Your task to perform on an android device: Open Reddit.com Image 0: 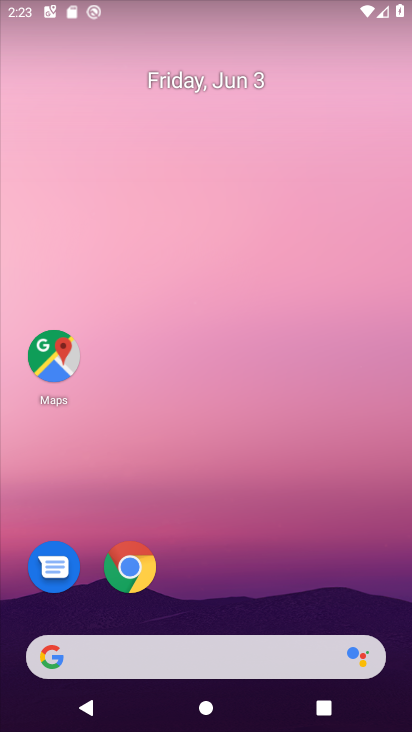
Step 0: drag from (220, 579) to (227, 156)
Your task to perform on an android device: Open Reddit.com Image 1: 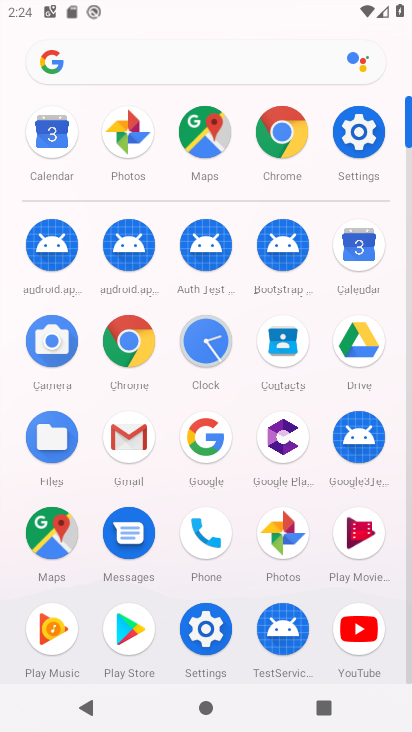
Step 1: click (276, 124)
Your task to perform on an android device: Open Reddit.com Image 2: 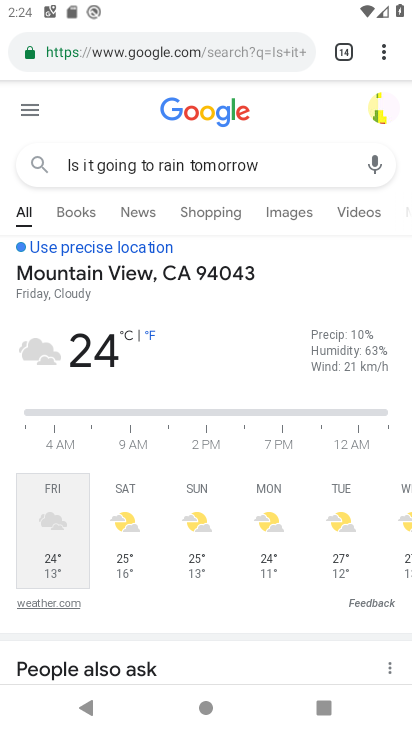
Step 2: click (372, 52)
Your task to perform on an android device: Open Reddit.com Image 3: 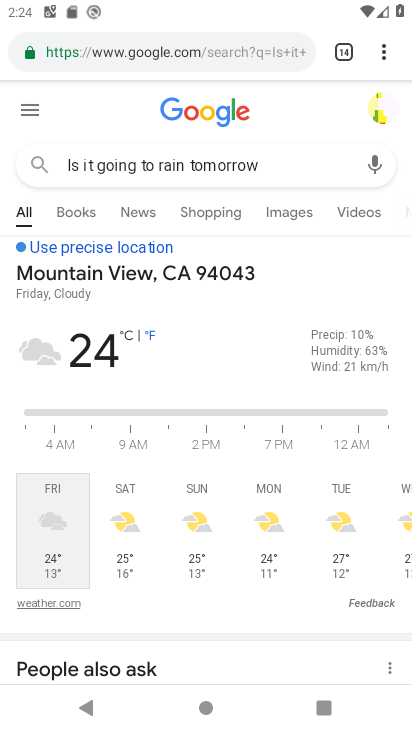
Step 3: click (399, 46)
Your task to perform on an android device: Open Reddit.com Image 4: 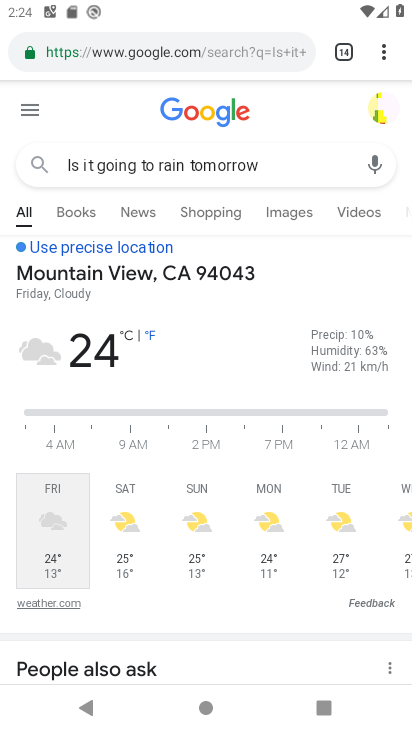
Step 4: click (378, 45)
Your task to perform on an android device: Open Reddit.com Image 5: 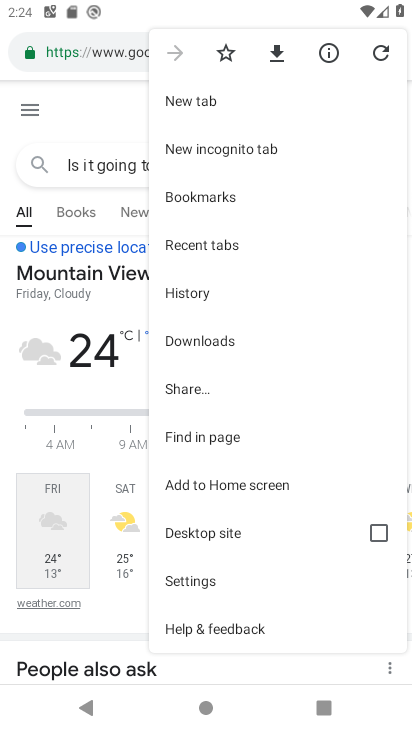
Step 5: click (226, 94)
Your task to perform on an android device: Open Reddit.com Image 6: 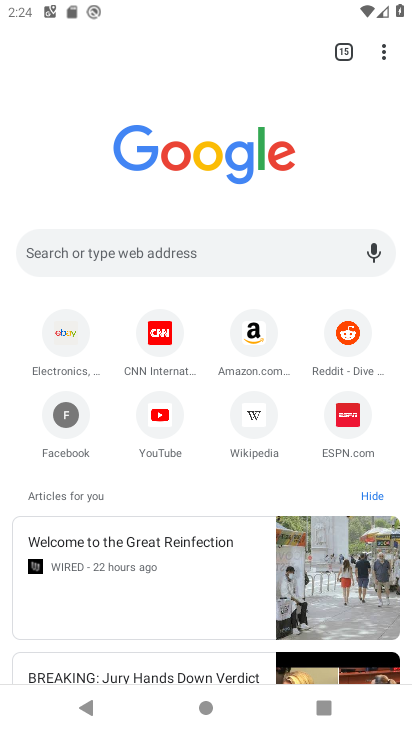
Step 6: click (325, 358)
Your task to perform on an android device: Open Reddit.com Image 7: 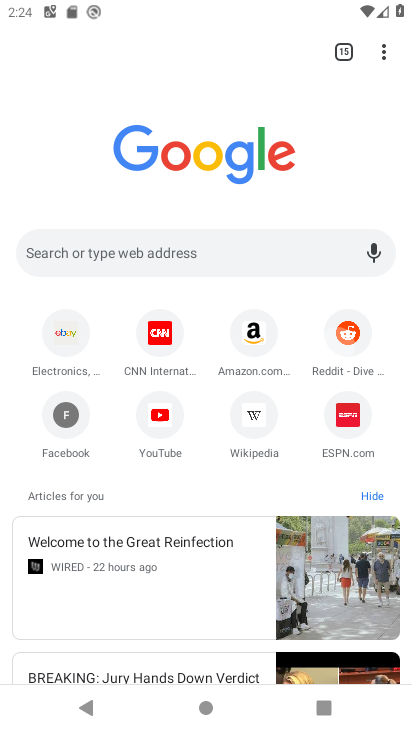
Step 7: click (334, 340)
Your task to perform on an android device: Open Reddit.com Image 8: 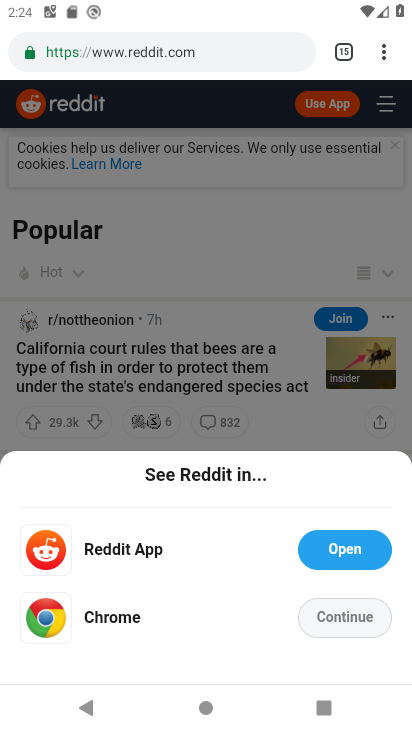
Step 8: click (193, 312)
Your task to perform on an android device: Open Reddit.com Image 9: 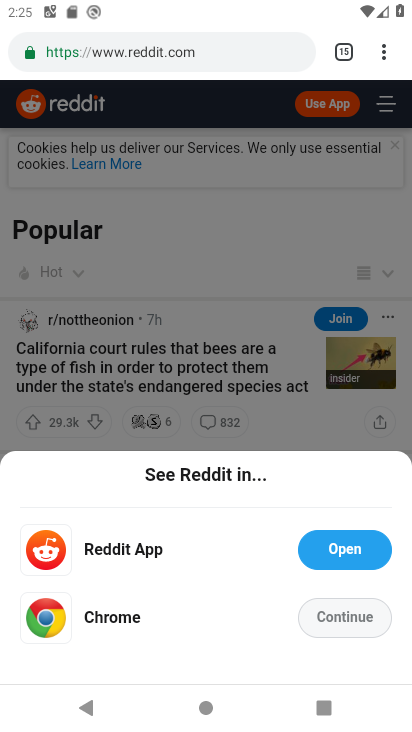
Step 9: task complete